Your task to perform on an android device: turn off translation in the chrome app Image 0: 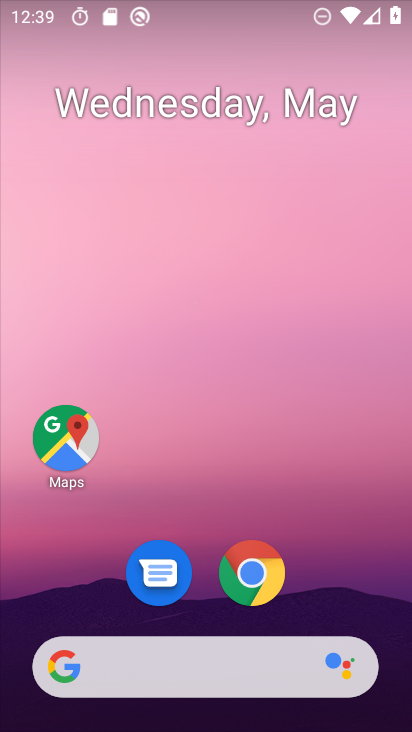
Step 0: drag from (234, 82) to (230, 45)
Your task to perform on an android device: turn off translation in the chrome app Image 1: 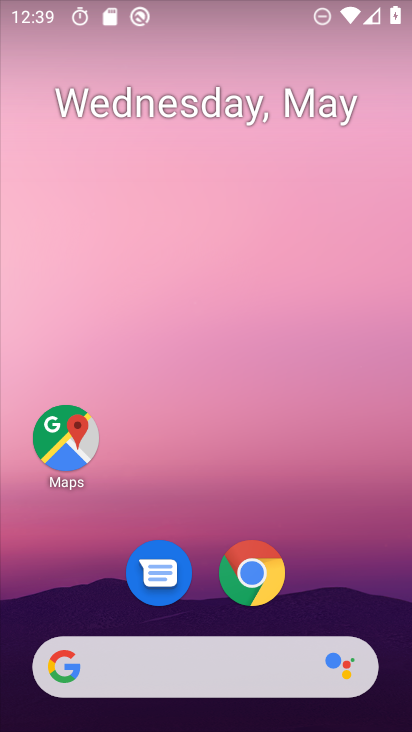
Step 1: drag from (306, 524) to (194, 10)
Your task to perform on an android device: turn off translation in the chrome app Image 2: 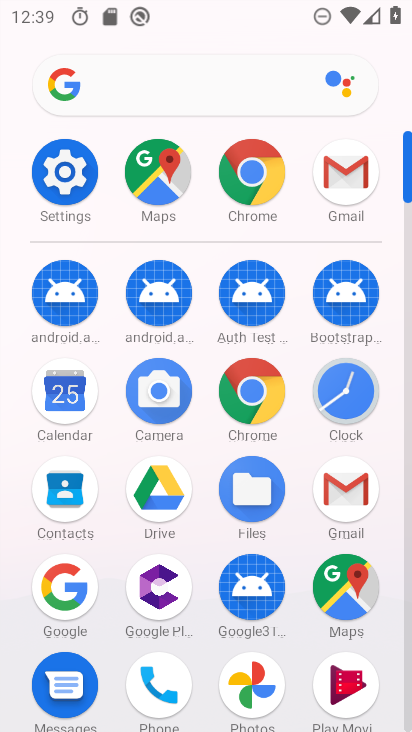
Step 2: click (245, 383)
Your task to perform on an android device: turn off translation in the chrome app Image 3: 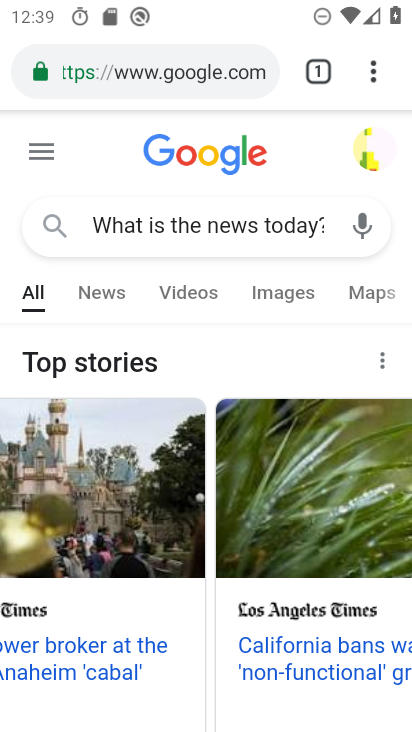
Step 3: drag from (372, 66) to (127, 545)
Your task to perform on an android device: turn off translation in the chrome app Image 4: 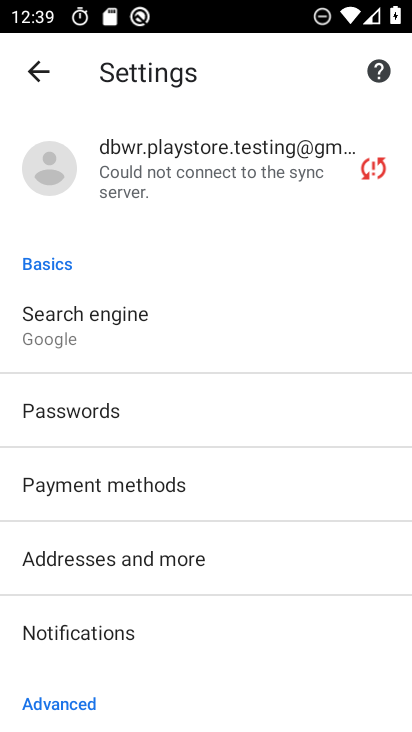
Step 4: drag from (221, 567) to (241, 189)
Your task to perform on an android device: turn off translation in the chrome app Image 5: 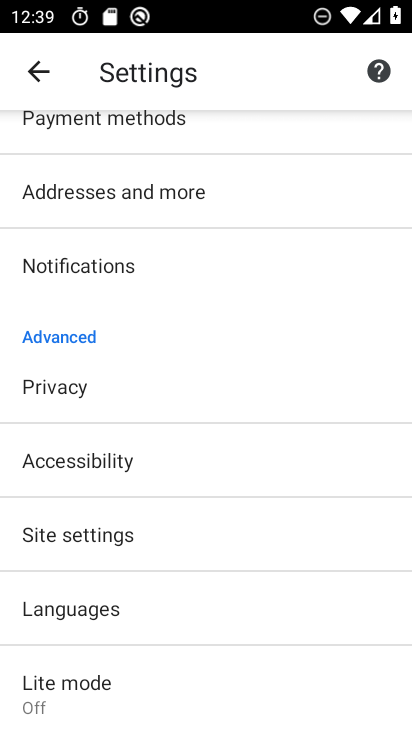
Step 5: drag from (222, 613) to (220, 290)
Your task to perform on an android device: turn off translation in the chrome app Image 6: 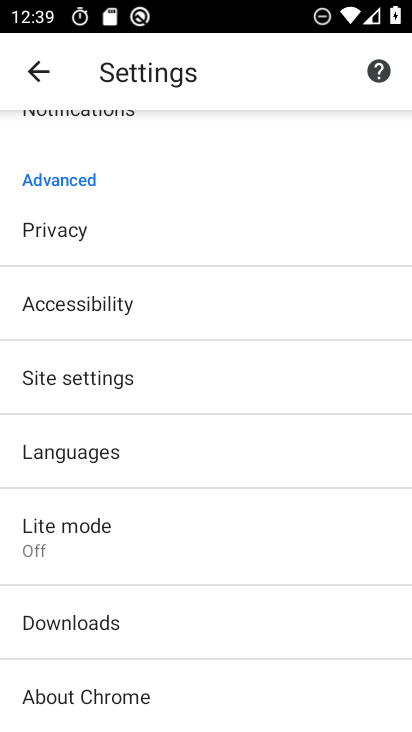
Step 6: click (105, 438)
Your task to perform on an android device: turn off translation in the chrome app Image 7: 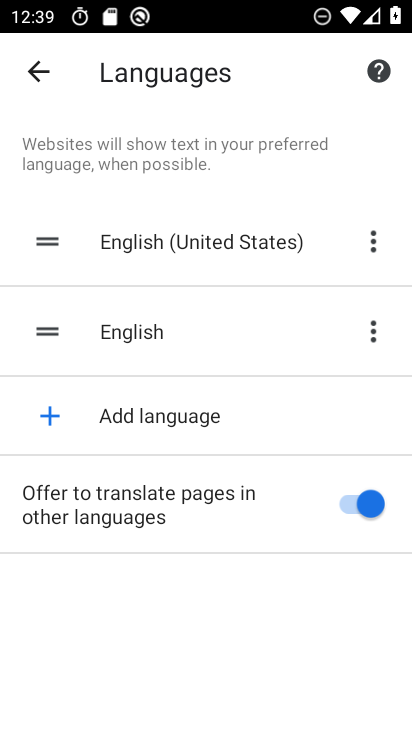
Step 7: click (362, 508)
Your task to perform on an android device: turn off translation in the chrome app Image 8: 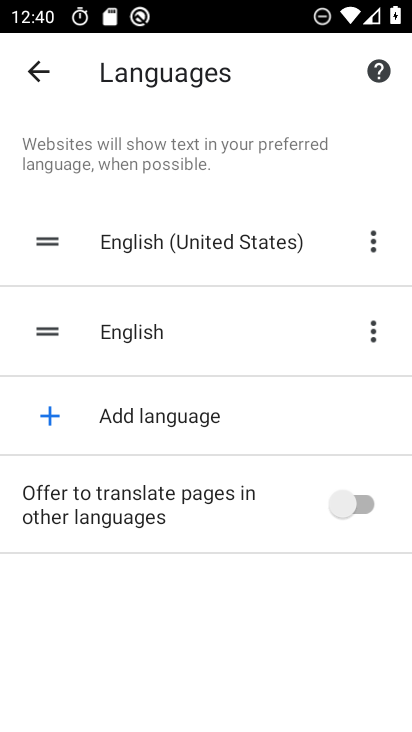
Step 8: task complete